Your task to perform on an android device: open app "Move to iOS" (install if not already installed) Image 0: 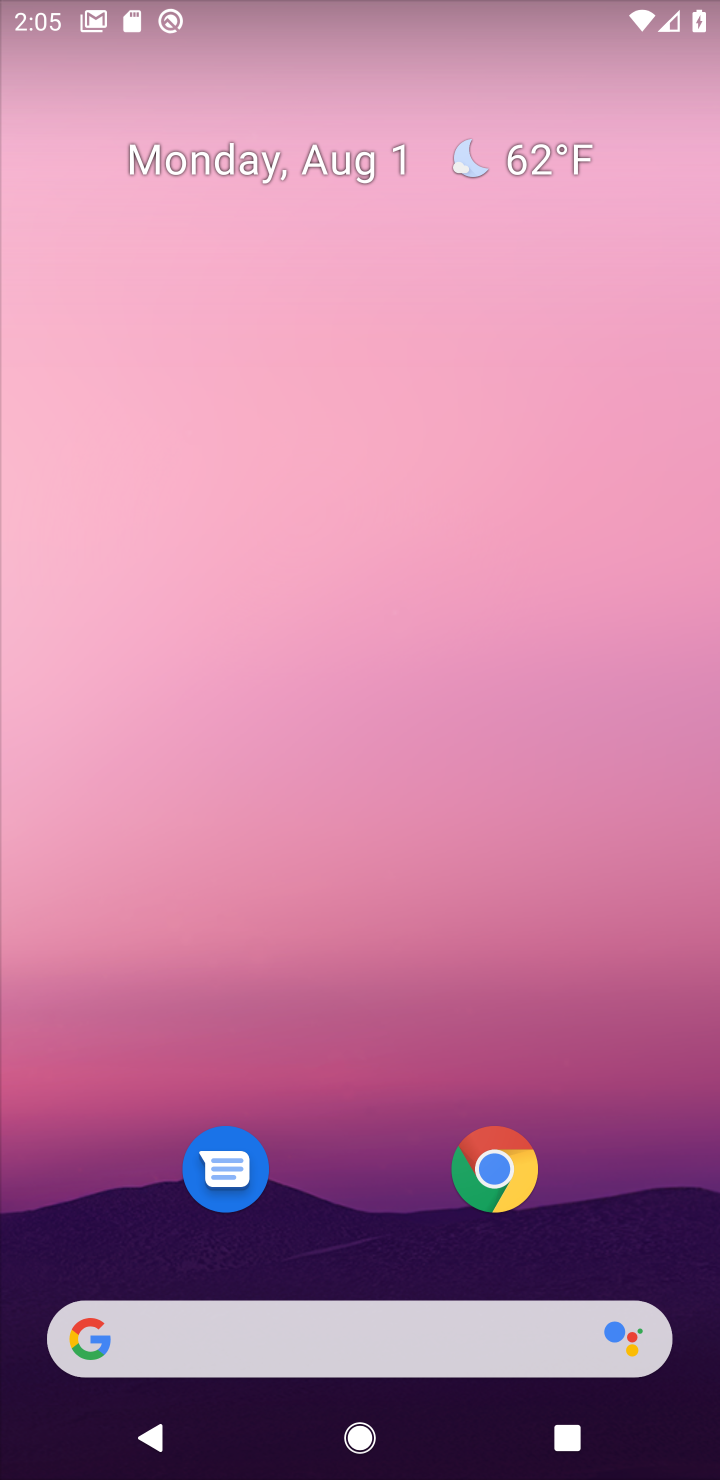
Step 0: drag from (260, 1044) to (260, 343)
Your task to perform on an android device: open app "Move to iOS" (install if not already installed) Image 1: 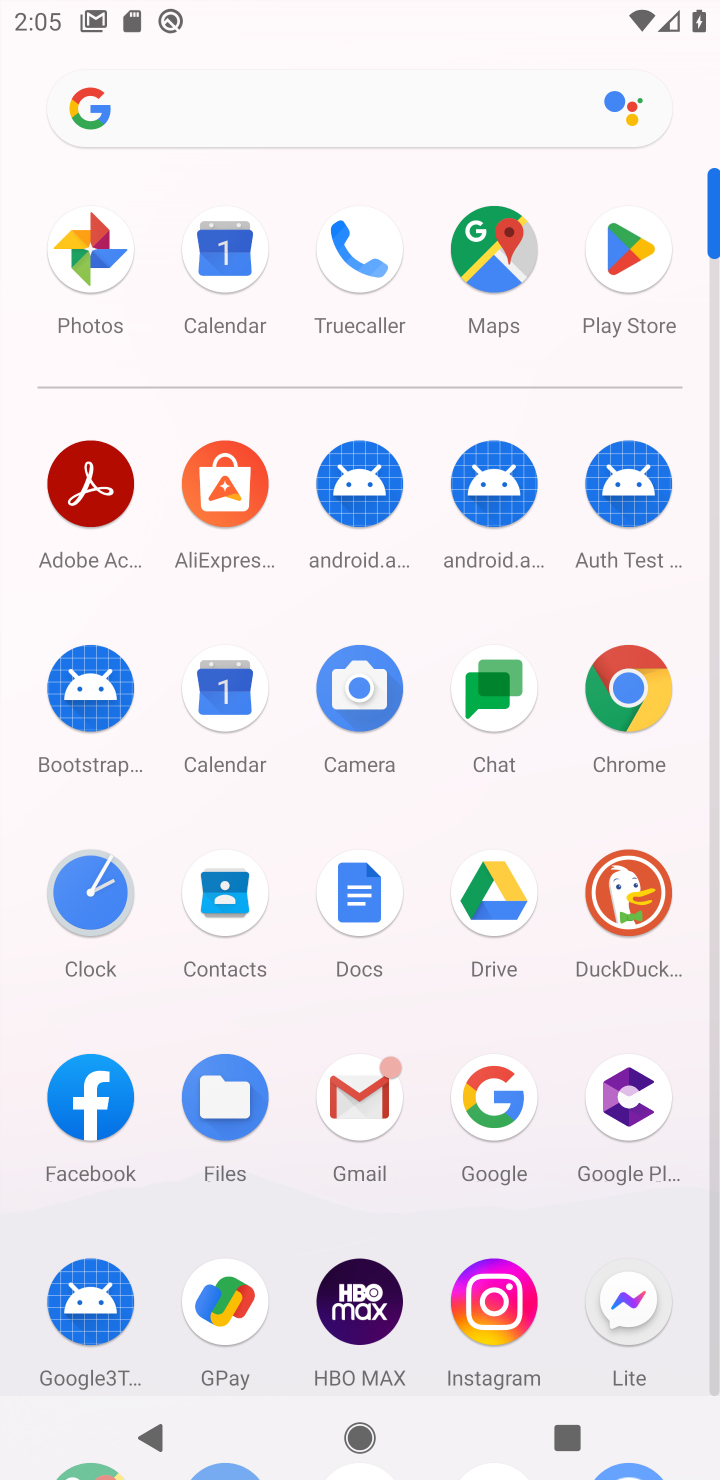
Step 1: click (618, 320)
Your task to perform on an android device: open app "Move to iOS" (install if not already installed) Image 2: 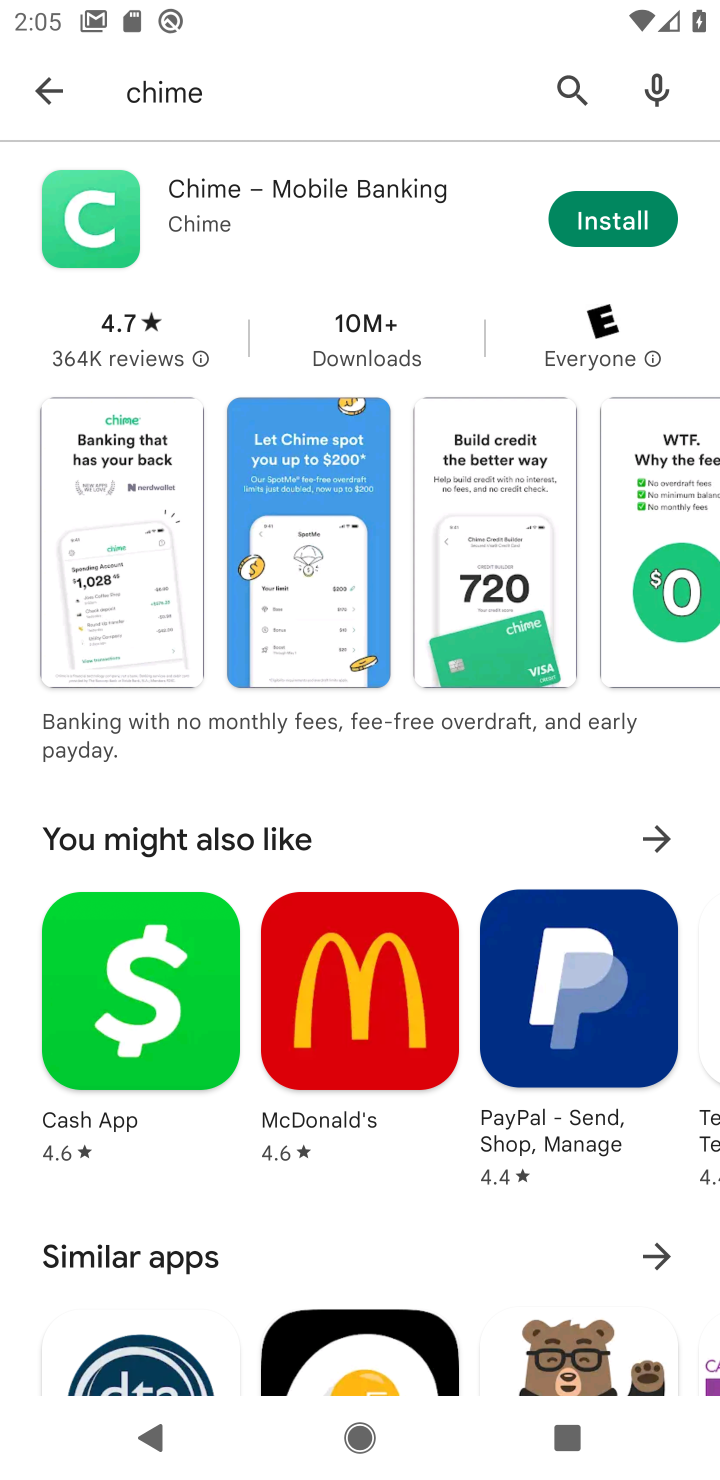
Step 2: click (42, 93)
Your task to perform on an android device: open app "Move to iOS" (install if not already installed) Image 3: 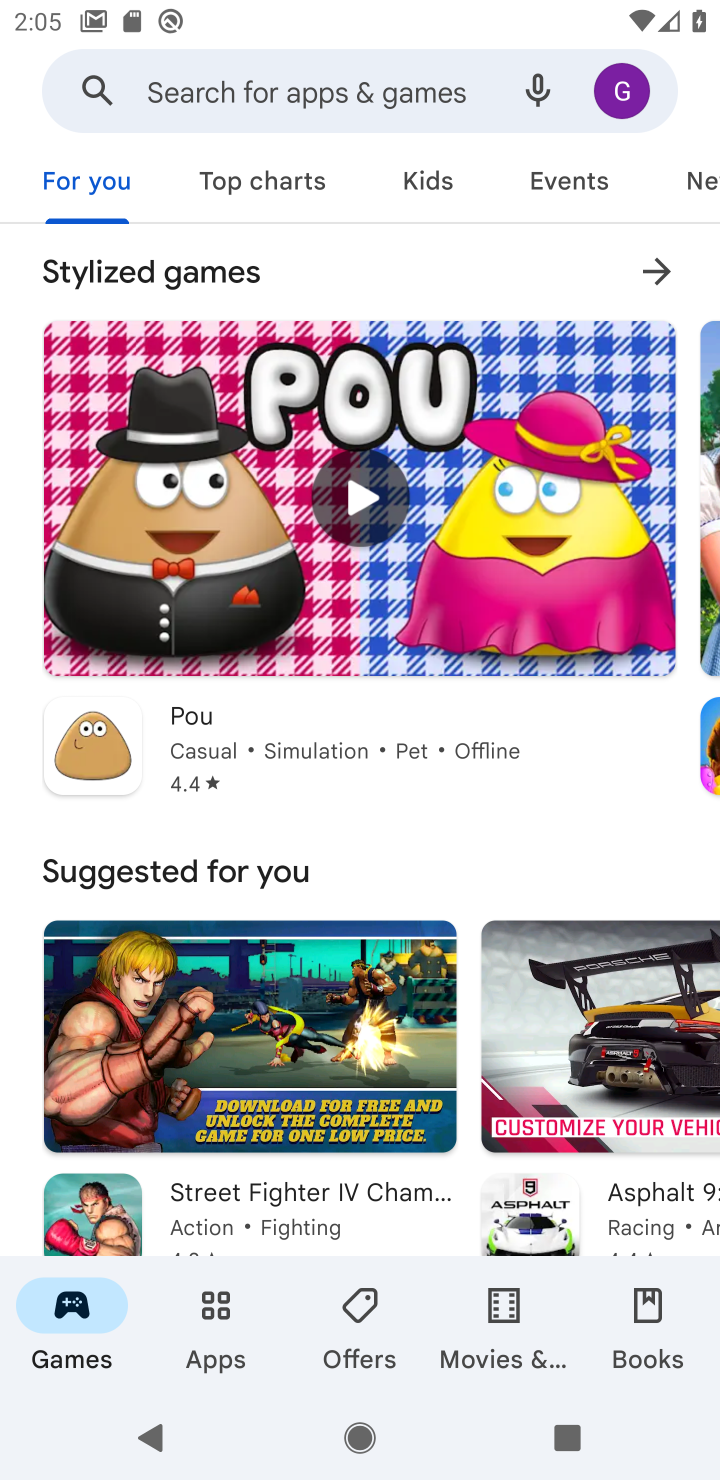
Step 3: click (228, 69)
Your task to perform on an android device: open app "Move to iOS" (install if not already installed) Image 4: 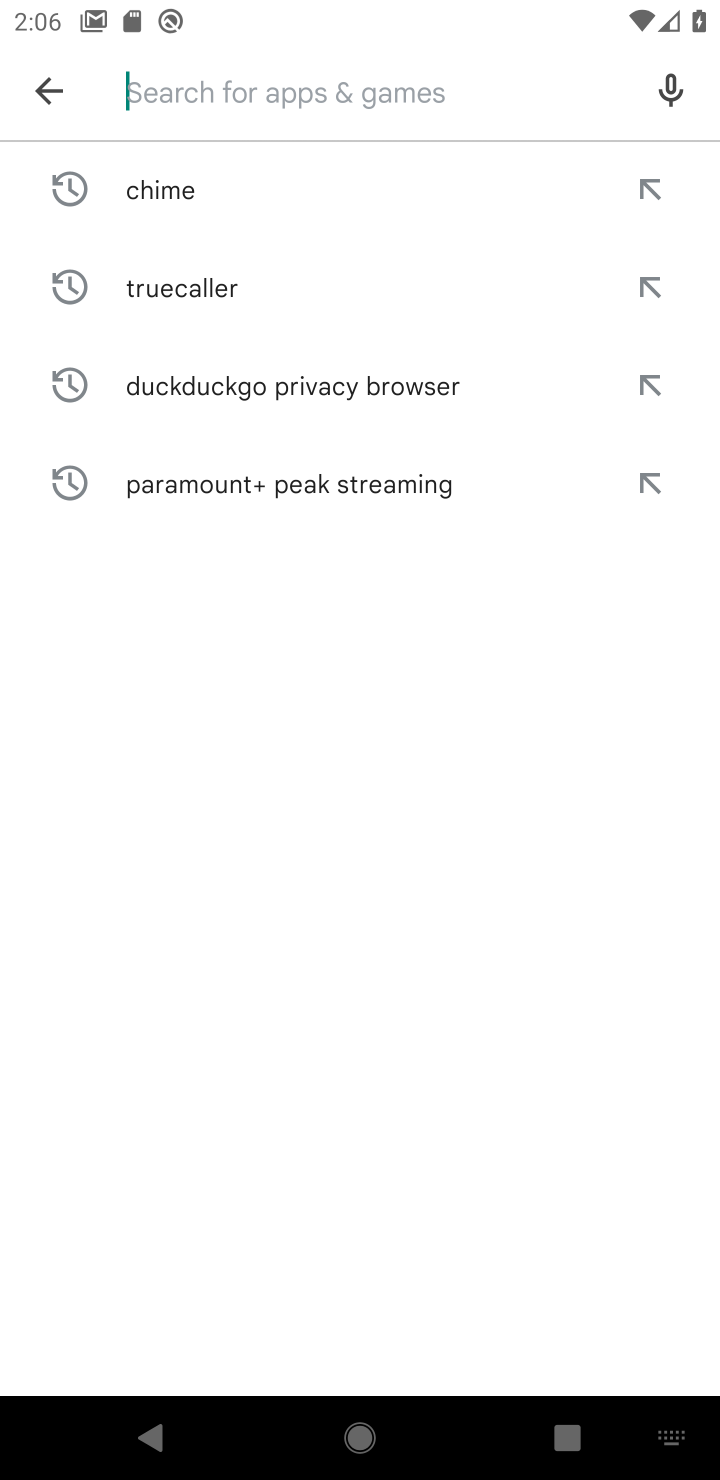
Step 4: type "Move to iOS"
Your task to perform on an android device: open app "Move to iOS" (install if not already installed) Image 5: 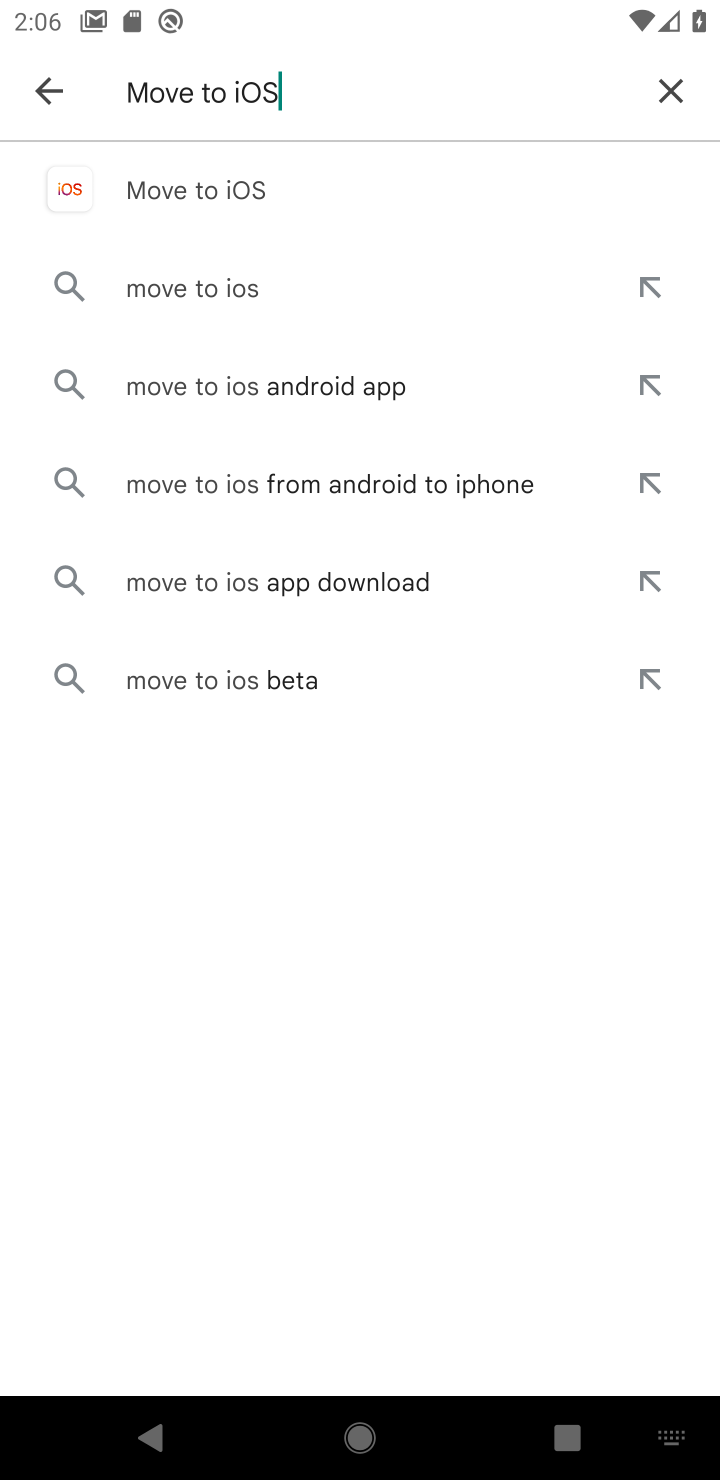
Step 5: click (252, 174)
Your task to perform on an android device: open app "Move to iOS" (install if not already installed) Image 6: 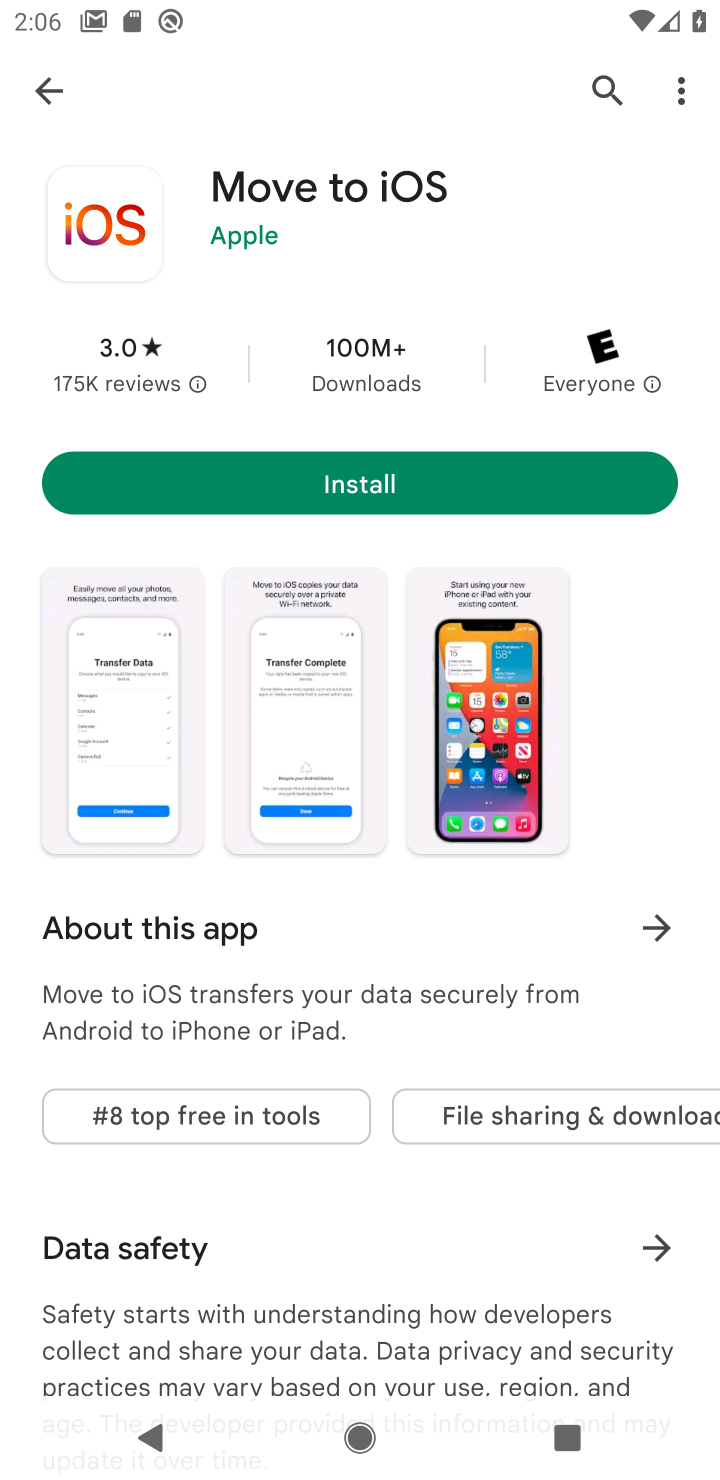
Step 6: click (354, 479)
Your task to perform on an android device: open app "Move to iOS" (install if not already installed) Image 7: 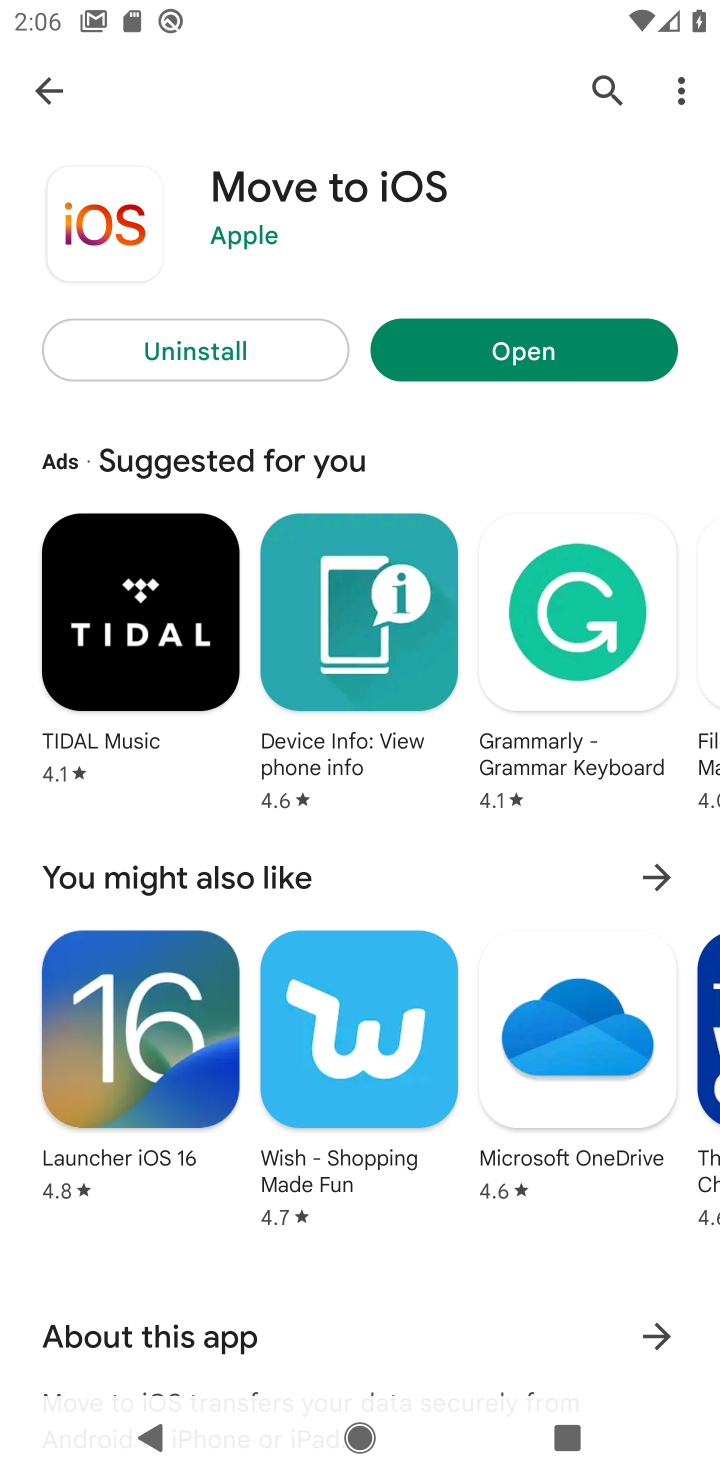
Step 7: click (591, 328)
Your task to perform on an android device: open app "Move to iOS" (install if not already installed) Image 8: 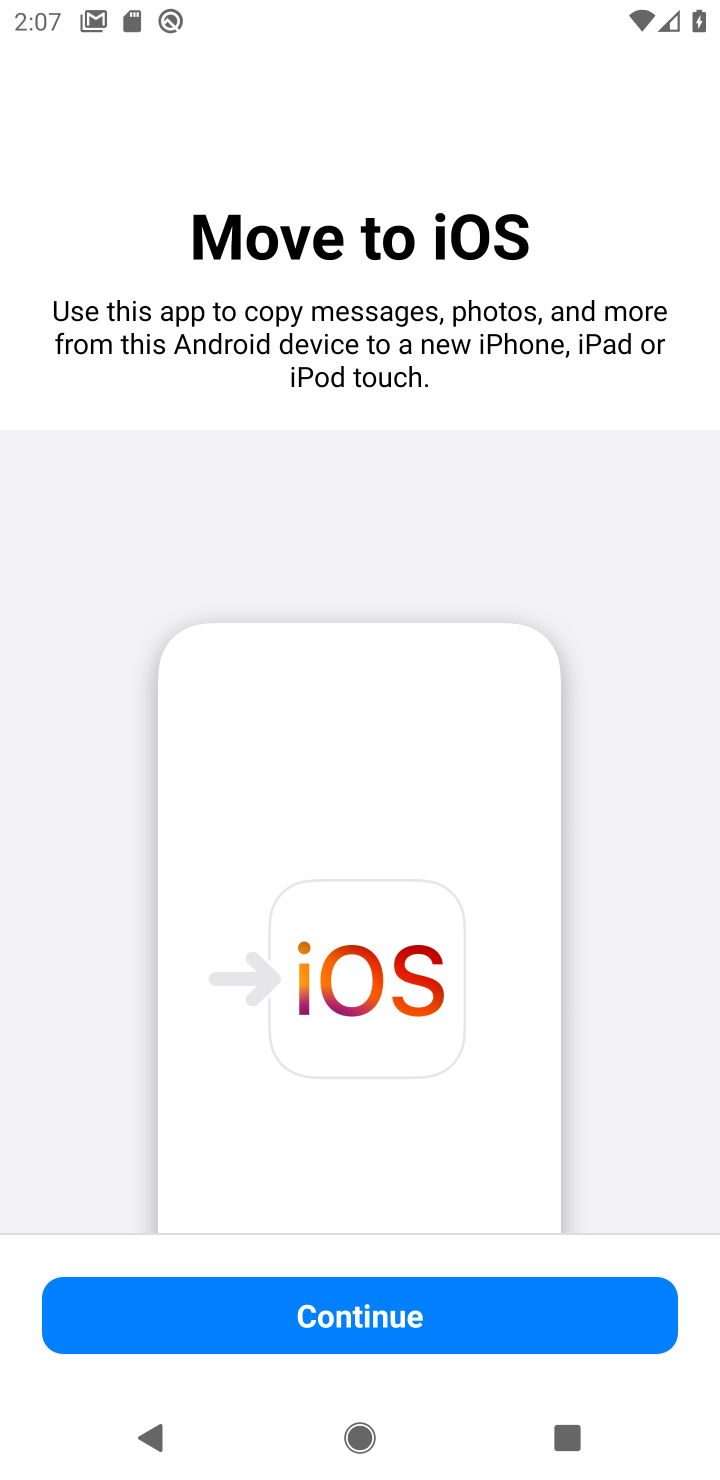
Step 8: task complete